Your task to perform on an android device: show emergency info Image 0: 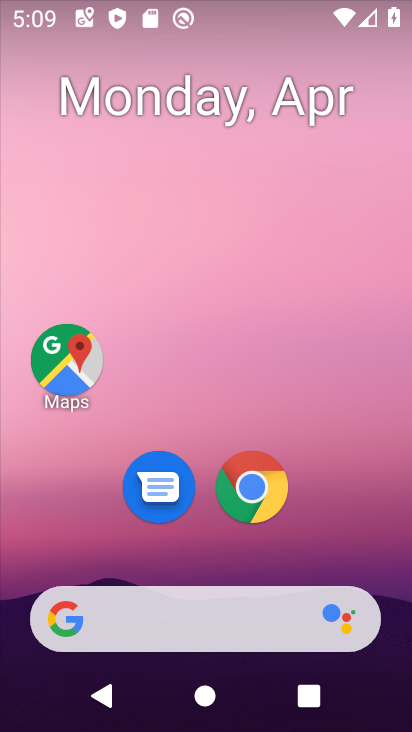
Step 0: drag from (335, 506) to (291, 105)
Your task to perform on an android device: show emergency info Image 1: 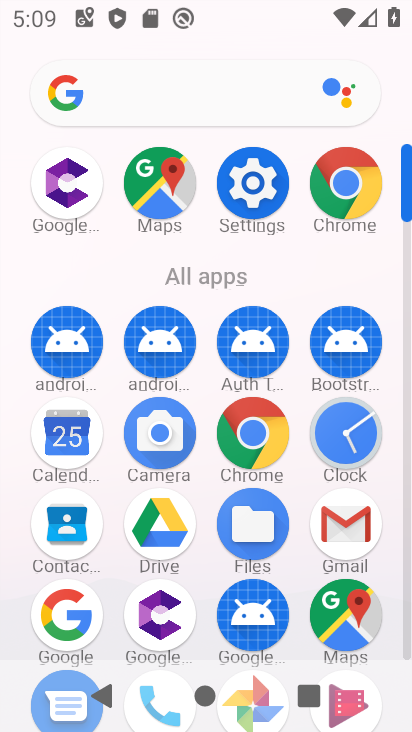
Step 1: click (269, 175)
Your task to perform on an android device: show emergency info Image 2: 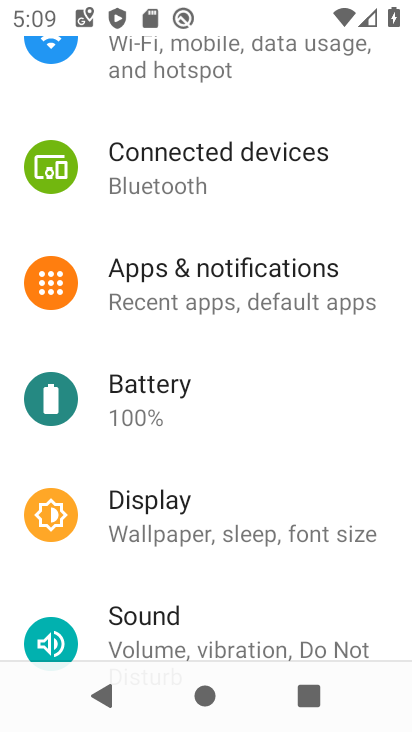
Step 2: drag from (263, 598) to (315, 70)
Your task to perform on an android device: show emergency info Image 3: 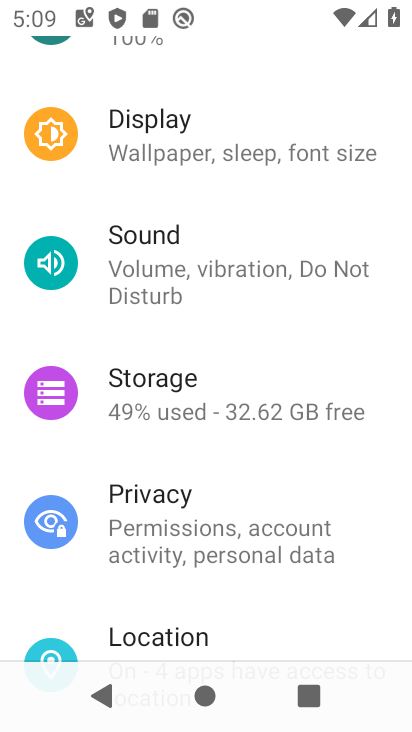
Step 3: drag from (283, 375) to (273, 245)
Your task to perform on an android device: show emergency info Image 4: 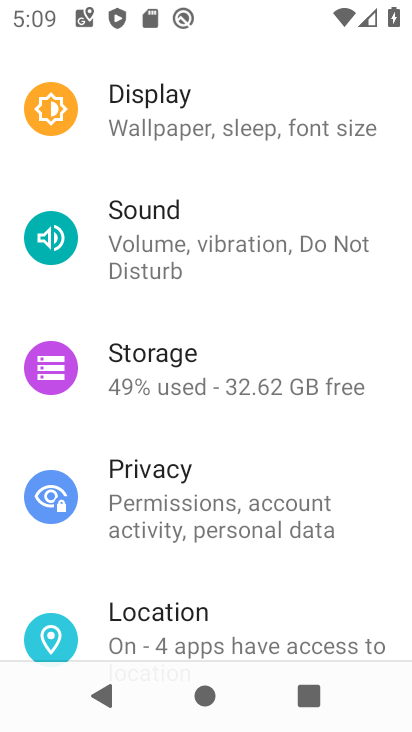
Step 4: drag from (238, 625) to (237, 244)
Your task to perform on an android device: show emergency info Image 5: 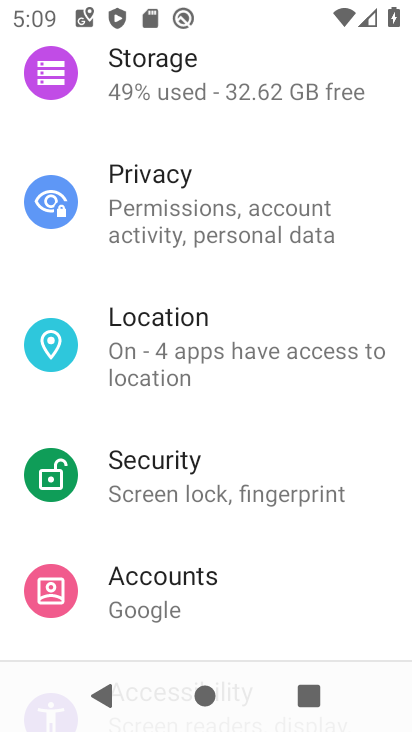
Step 5: drag from (254, 615) to (259, 279)
Your task to perform on an android device: show emergency info Image 6: 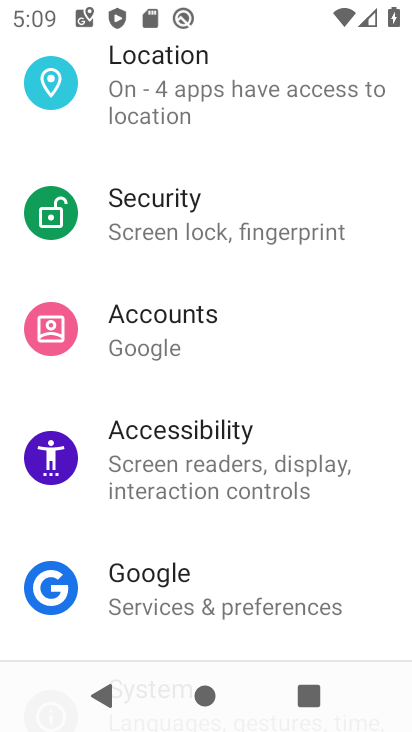
Step 6: drag from (285, 567) to (282, 194)
Your task to perform on an android device: show emergency info Image 7: 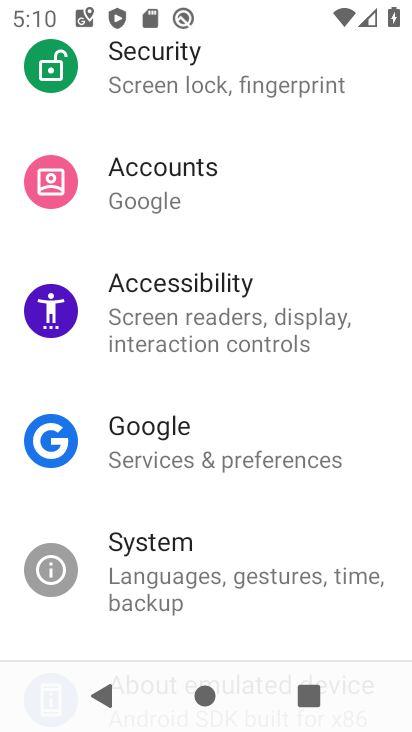
Step 7: drag from (256, 644) to (276, 217)
Your task to perform on an android device: show emergency info Image 8: 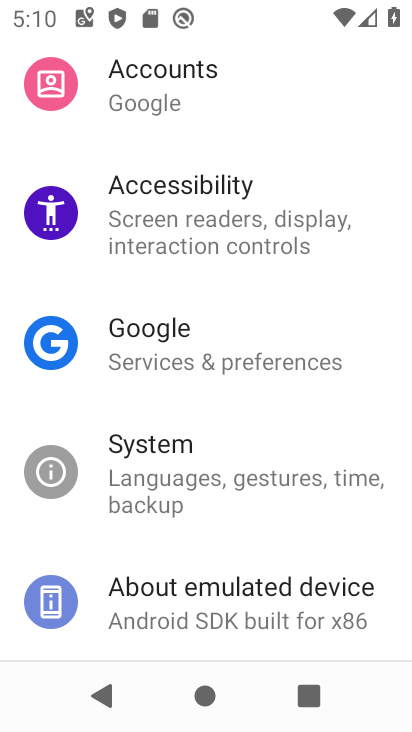
Step 8: click (233, 594)
Your task to perform on an android device: show emergency info Image 9: 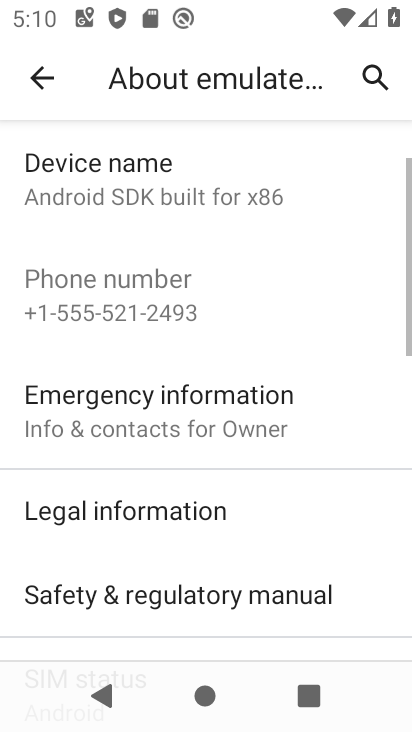
Step 9: task complete